Your task to perform on an android device: all mails in gmail Image 0: 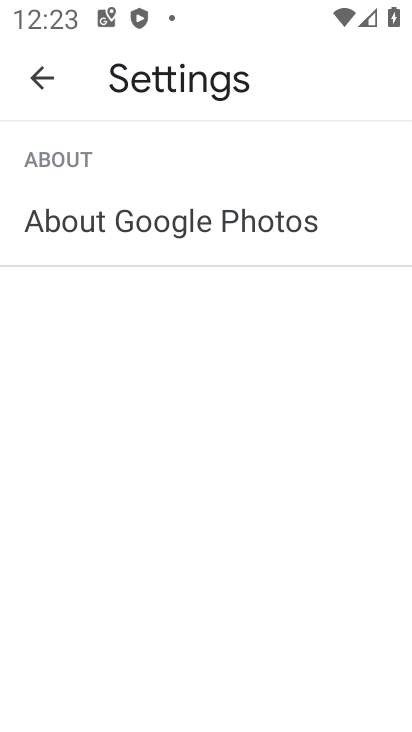
Step 0: press back button
Your task to perform on an android device: all mails in gmail Image 1: 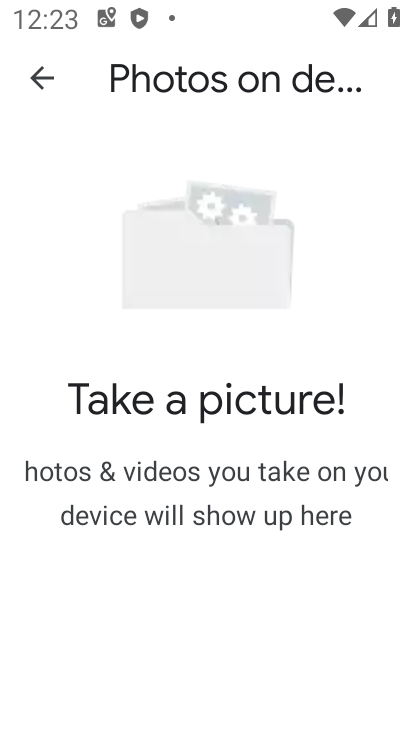
Step 1: press back button
Your task to perform on an android device: all mails in gmail Image 2: 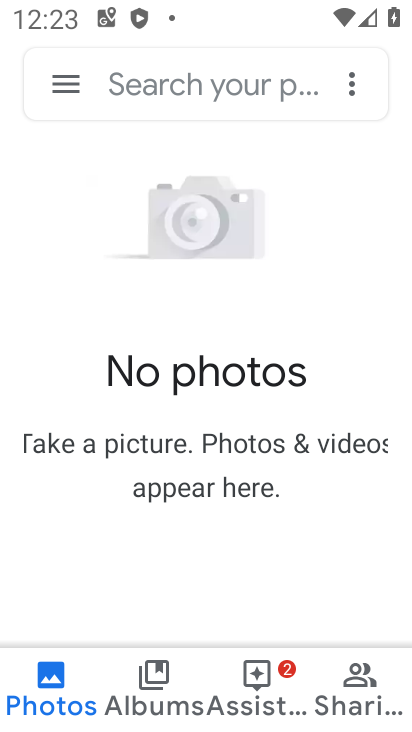
Step 2: press back button
Your task to perform on an android device: all mails in gmail Image 3: 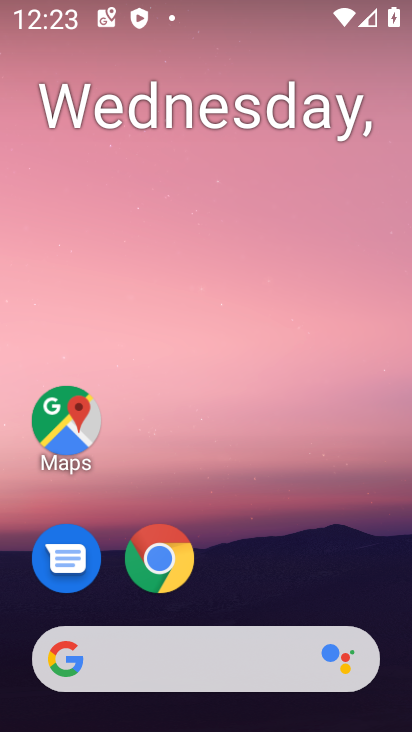
Step 3: drag from (293, 585) to (319, 95)
Your task to perform on an android device: all mails in gmail Image 4: 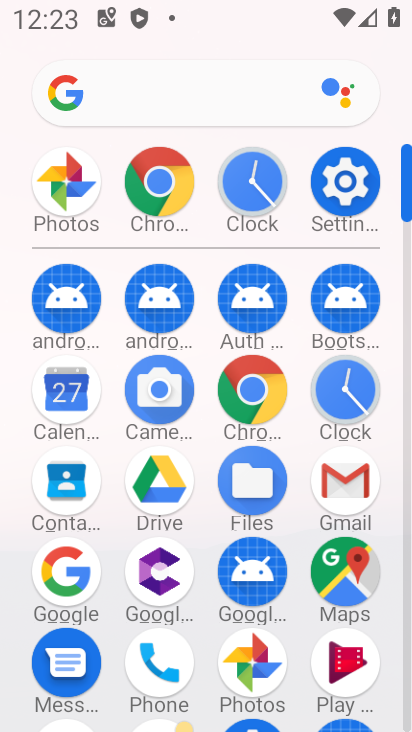
Step 4: click (333, 482)
Your task to perform on an android device: all mails in gmail Image 5: 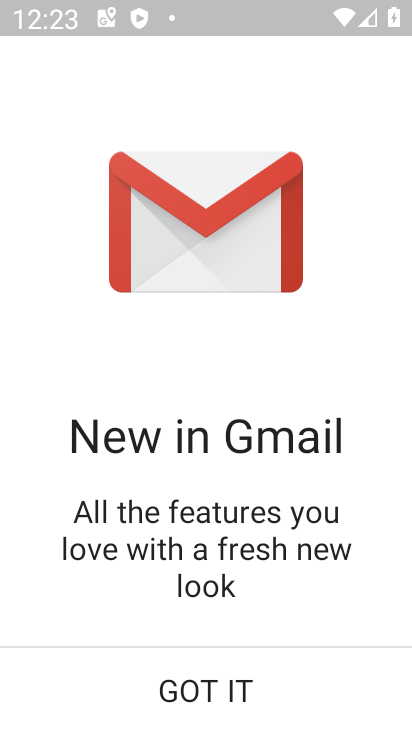
Step 5: click (211, 674)
Your task to perform on an android device: all mails in gmail Image 6: 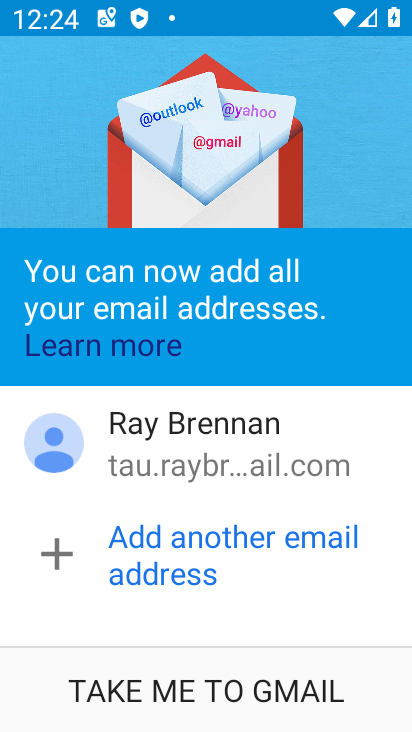
Step 6: click (187, 696)
Your task to perform on an android device: all mails in gmail Image 7: 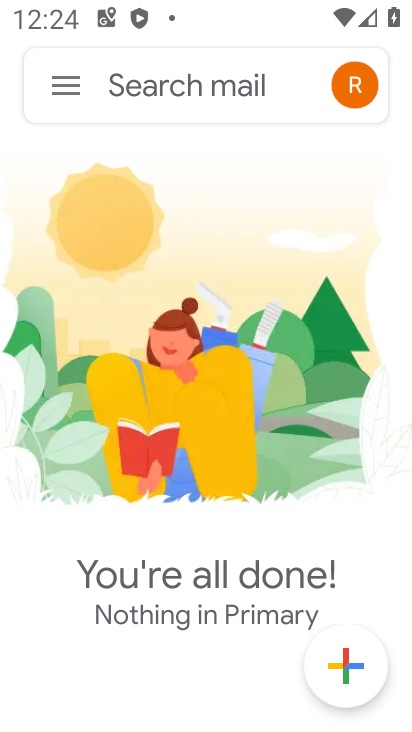
Step 7: click (77, 73)
Your task to perform on an android device: all mails in gmail Image 8: 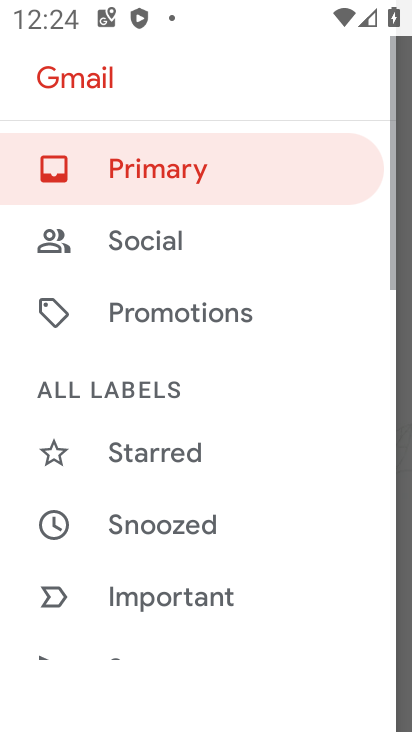
Step 8: drag from (193, 612) to (268, 57)
Your task to perform on an android device: all mails in gmail Image 9: 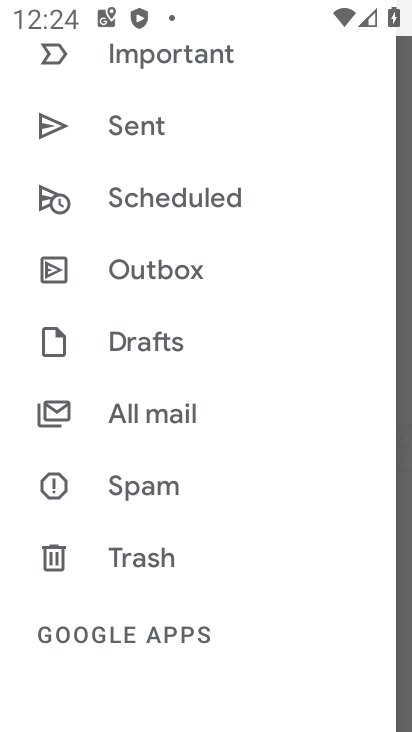
Step 9: click (172, 402)
Your task to perform on an android device: all mails in gmail Image 10: 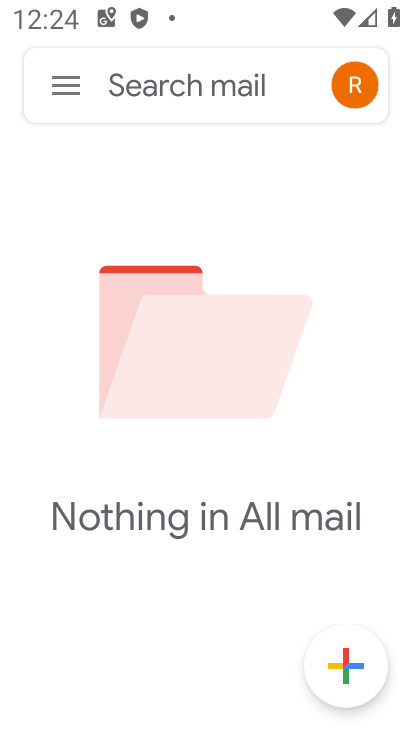
Step 10: task complete